Your task to perform on an android device: Open Amazon Image 0: 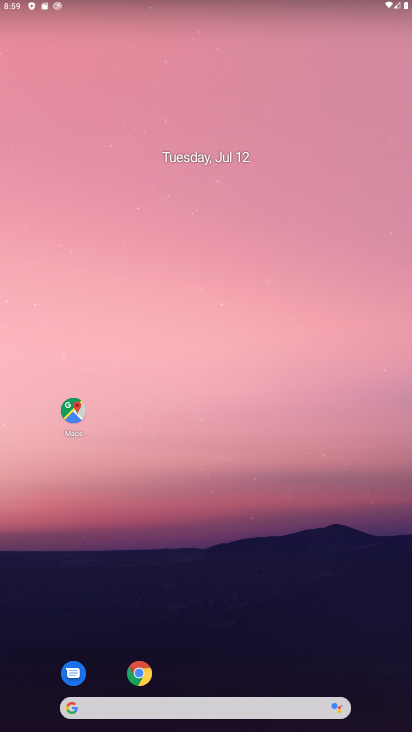
Step 0: click (172, 485)
Your task to perform on an android device: Open Amazon Image 1: 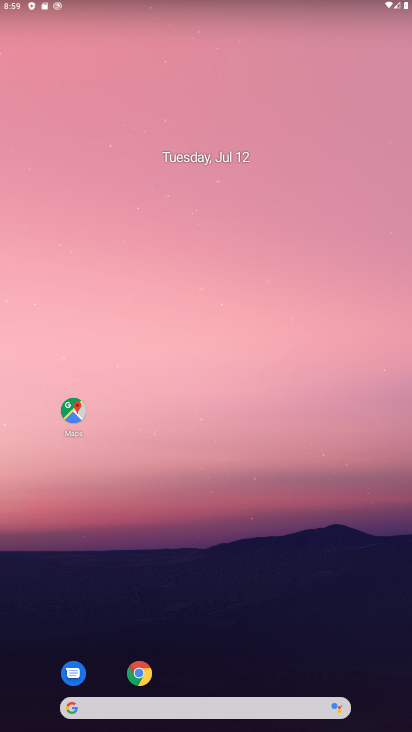
Step 1: click (151, 677)
Your task to perform on an android device: Open Amazon Image 2: 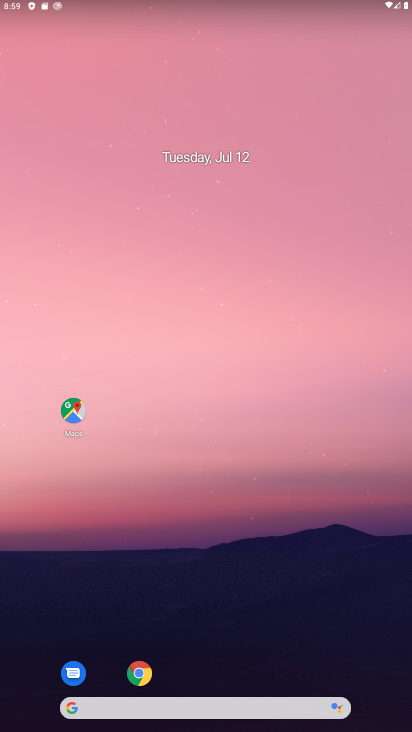
Step 2: click (140, 675)
Your task to perform on an android device: Open Amazon Image 3: 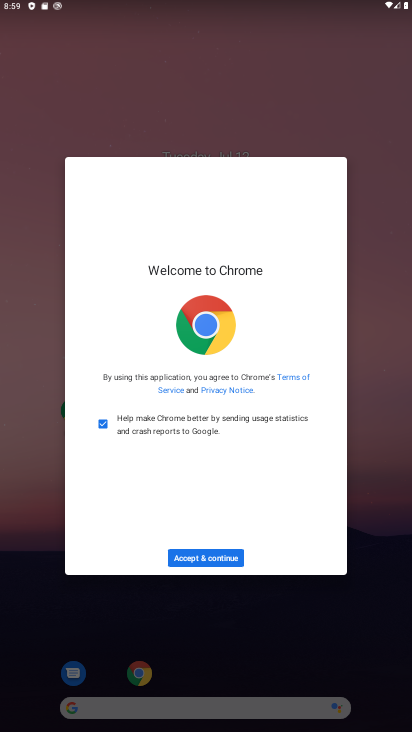
Step 3: click (178, 567)
Your task to perform on an android device: Open Amazon Image 4: 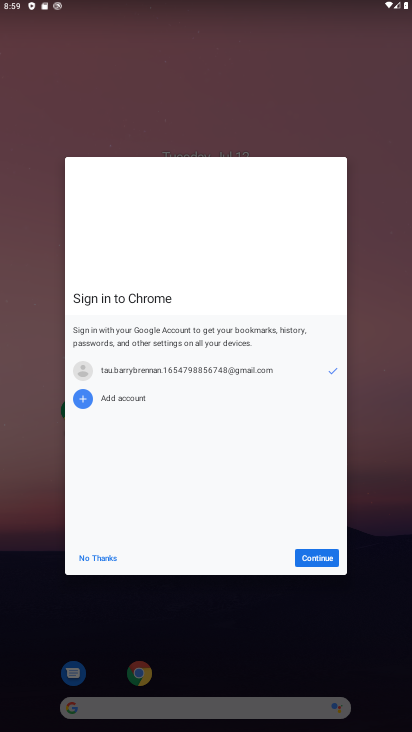
Step 4: click (316, 559)
Your task to perform on an android device: Open Amazon Image 5: 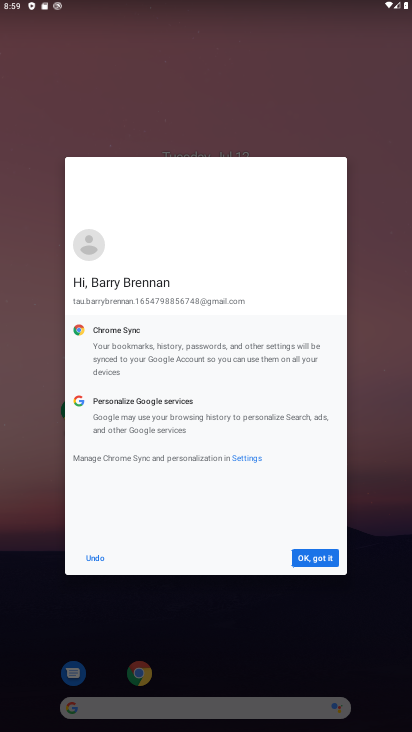
Step 5: click (316, 559)
Your task to perform on an android device: Open Amazon Image 6: 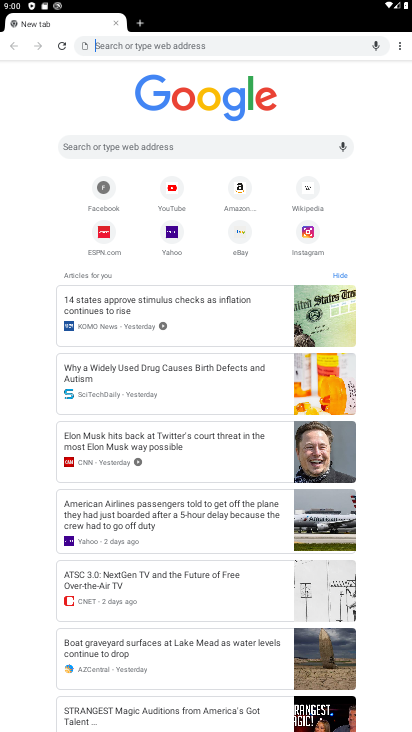
Step 6: click (237, 191)
Your task to perform on an android device: Open Amazon Image 7: 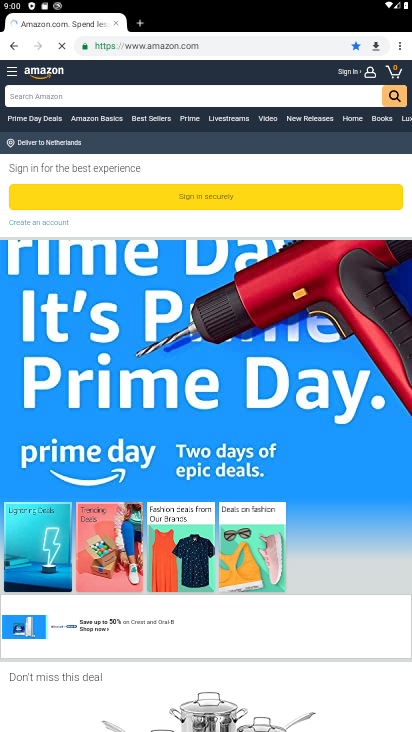
Step 7: task complete